Your task to perform on an android device: change the clock display to show seconds Image 0: 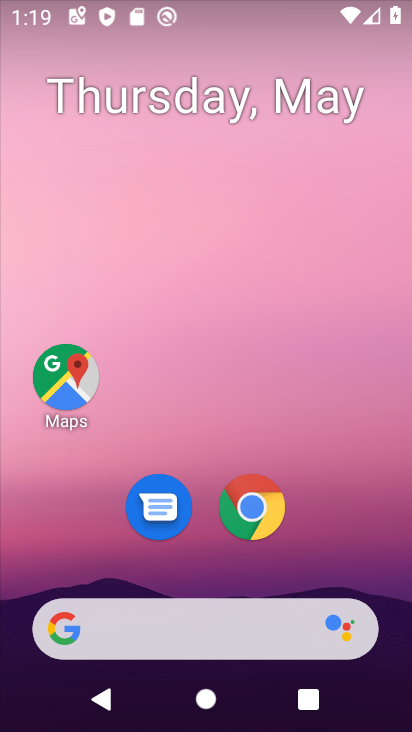
Step 0: drag from (364, 602) to (404, 177)
Your task to perform on an android device: change the clock display to show seconds Image 1: 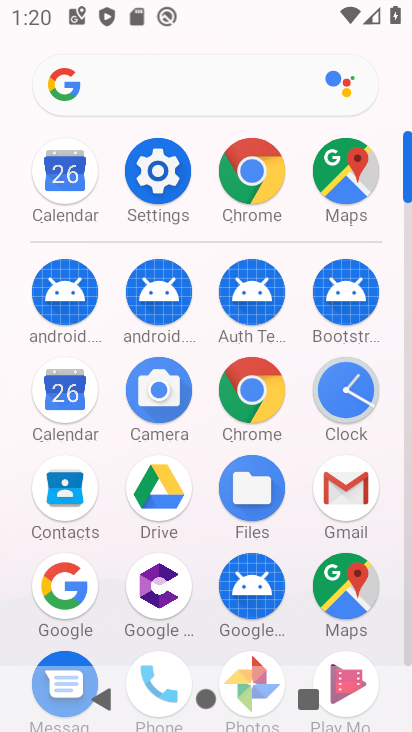
Step 1: press home button
Your task to perform on an android device: change the clock display to show seconds Image 2: 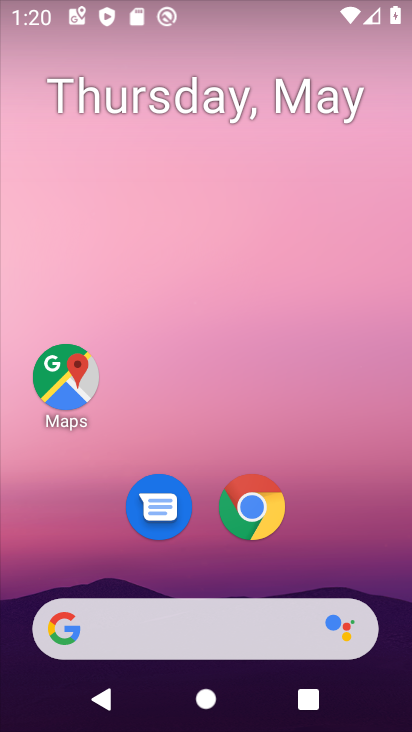
Step 2: drag from (364, 607) to (410, 2)
Your task to perform on an android device: change the clock display to show seconds Image 3: 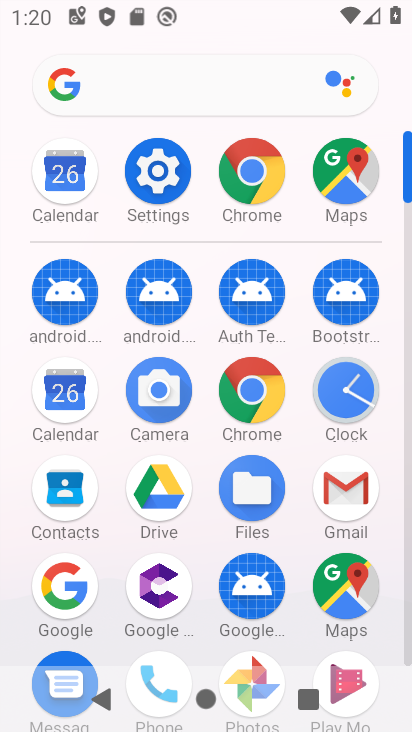
Step 3: click (366, 373)
Your task to perform on an android device: change the clock display to show seconds Image 4: 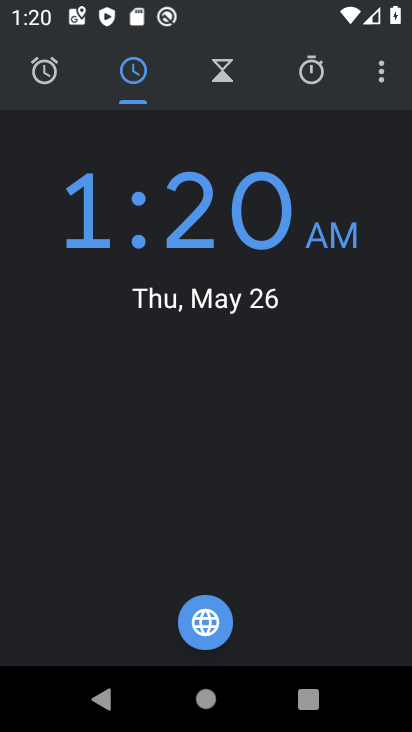
Step 4: click (382, 60)
Your task to perform on an android device: change the clock display to show seconds Image 5: 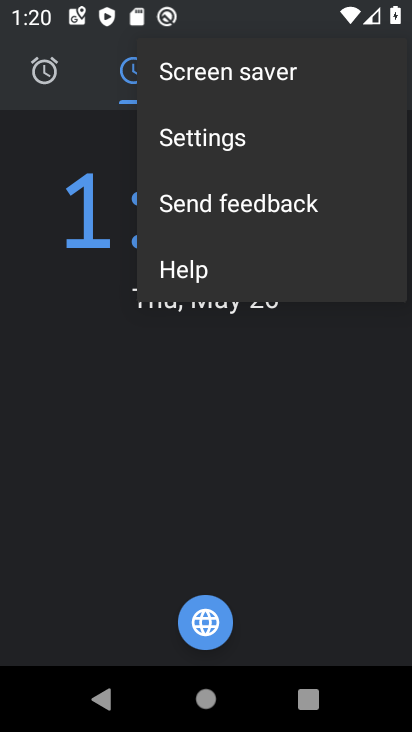
Step 5: click (320, 158)
Your task to perform on an android device: change the clock display to show seconds Image 6: 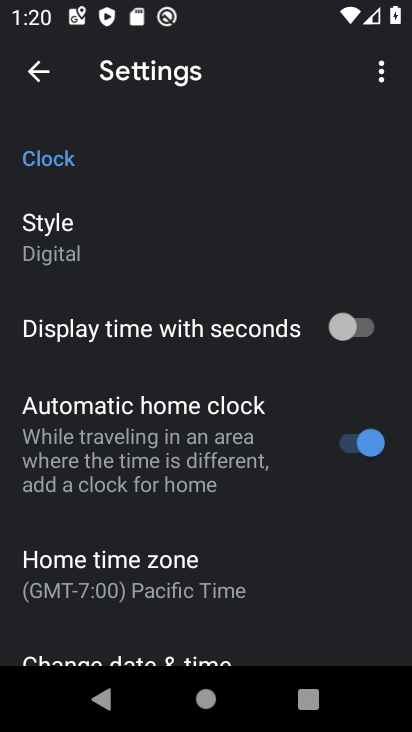
Step 6: click (372, 323)
Your task to perform on an android device: change the clock display to show seconds Image 7: 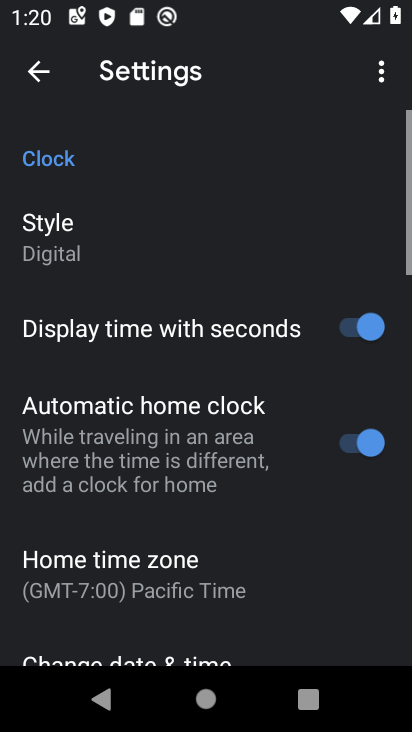
Step 7: task complete